Your task to perform on an android device: What's the weather going to be this weekend? Image 0: 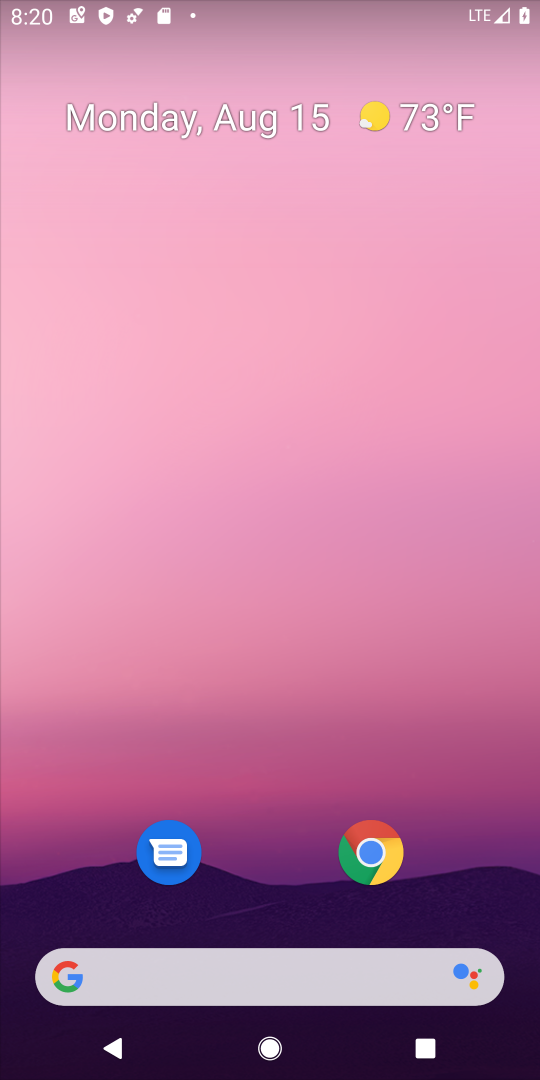
Step 0: drag from (192, 975) to (342, 153)
Your task to perform on an android device: What's the weather going to be this weekend? Image 1: 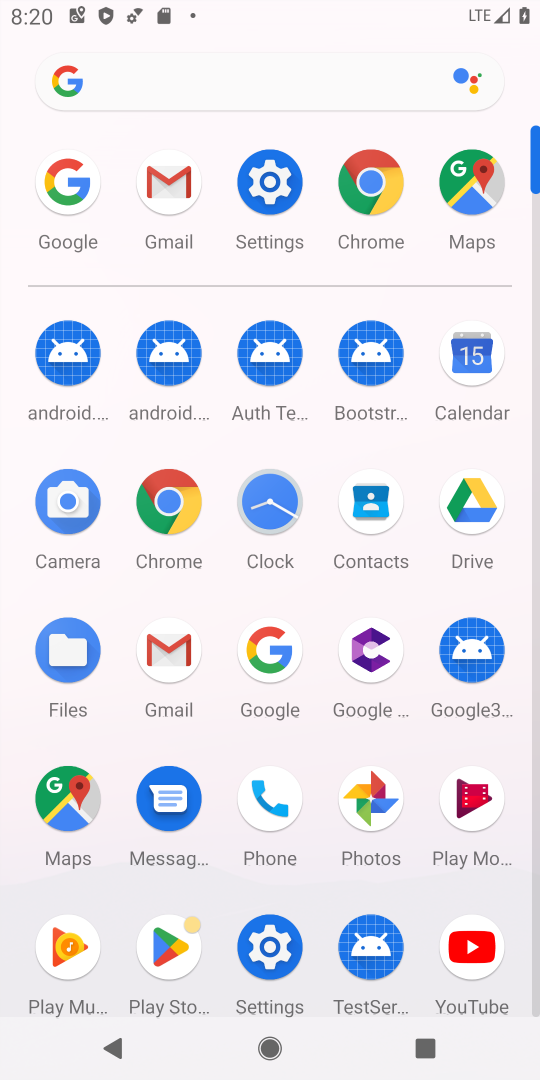
Step 1: click (58, 183)
Your task to perform on an android device: What's the weather going to be this weekend? Image 2: 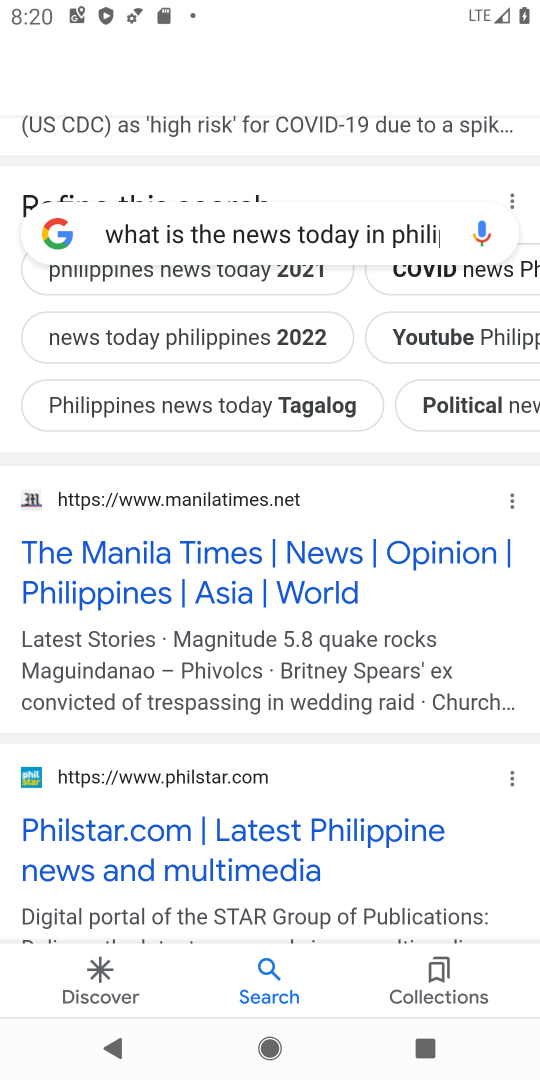
Step 2: click (427, 229)
Your task to perform on an android device: What's the weather going to be this weekend? Image 3: 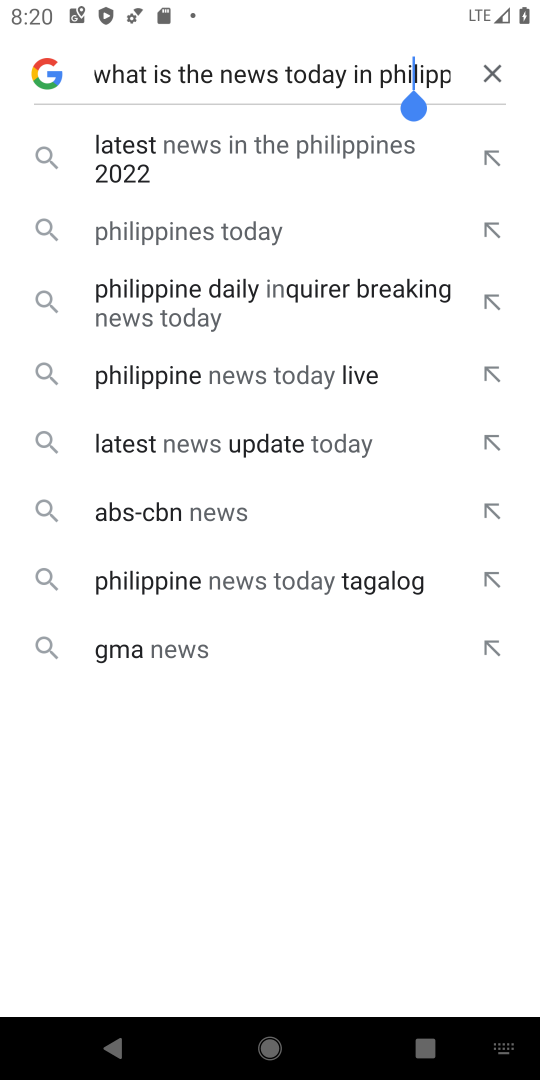
Step 3: click (503, 77)
Your task to perform on an android device: What's the weather going to be this weekend? Image 4: 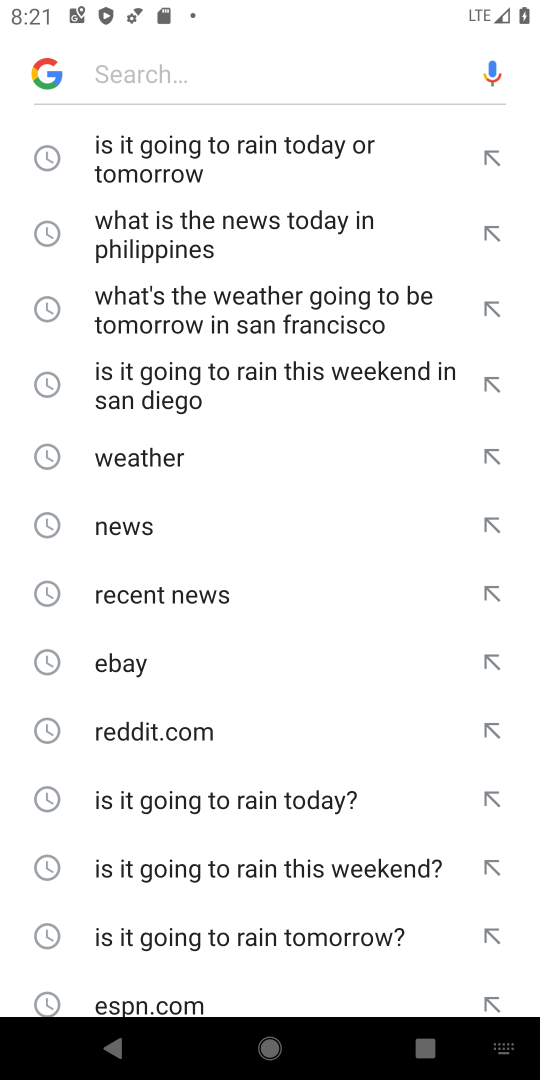
Step 4: type "What's the weather going to be this weekend"
Your task to perform on an android device: What's the weather going to be this weekend? Image 5: 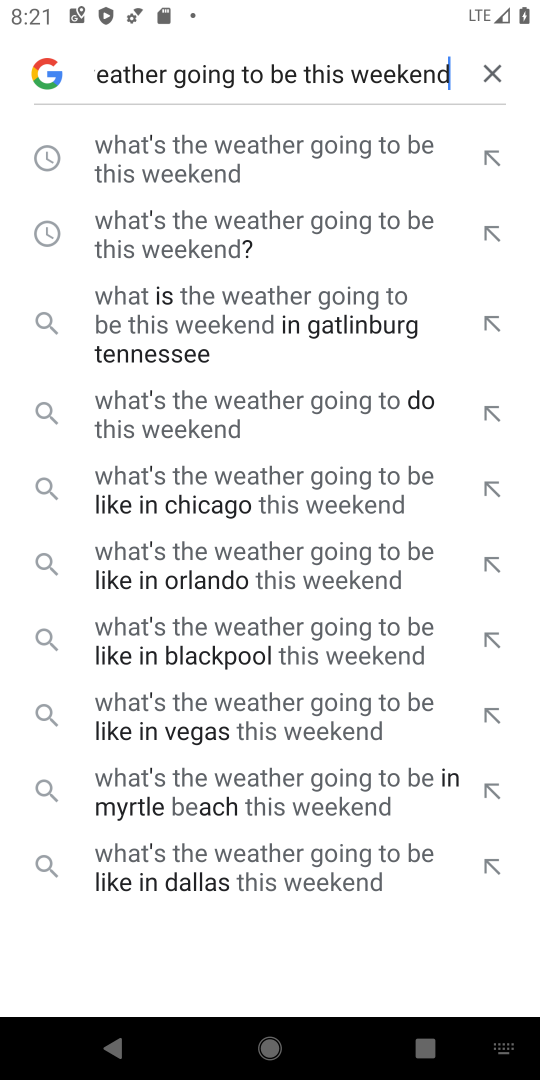
Step 5: click (300, 156)
Your task to perform on an android device: What's the weather going to be this weekend? Image 6: 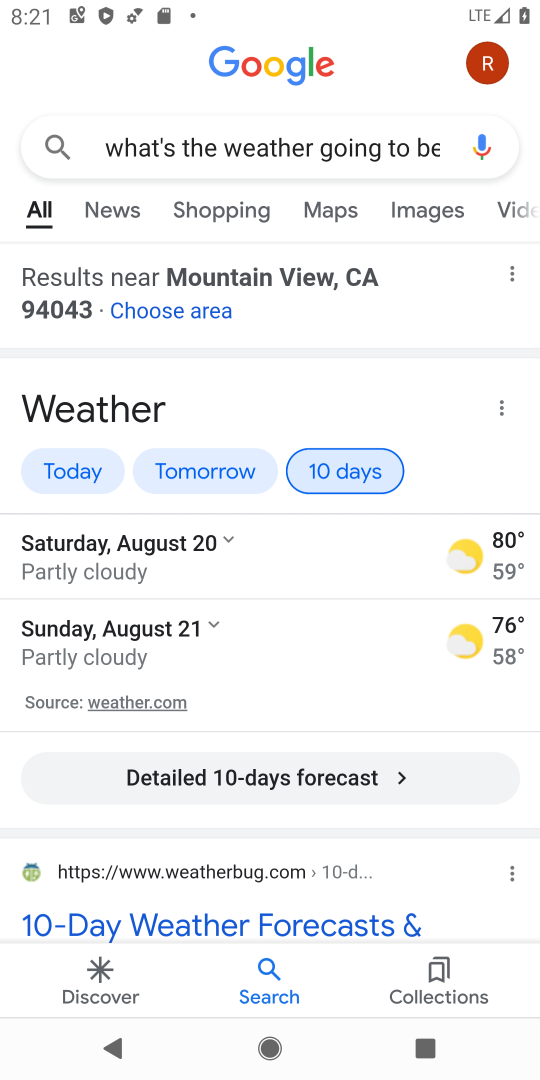
Step 6: task complete